Your task to perform on an android device: What is the recent news? Image 0: 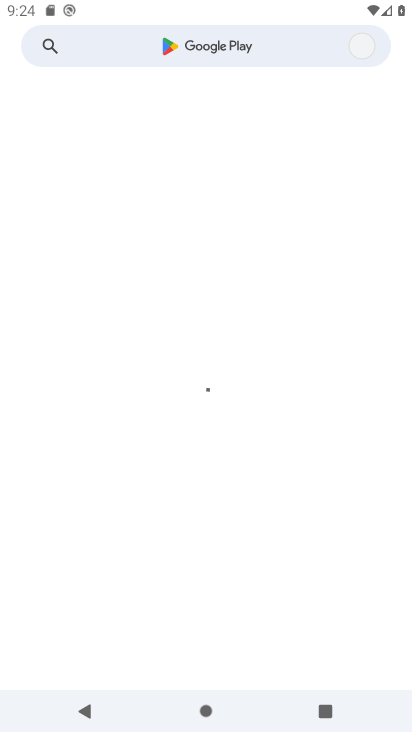
Step 0: press home button
Your task to perform on an android device: What is the recent news? Image 1: 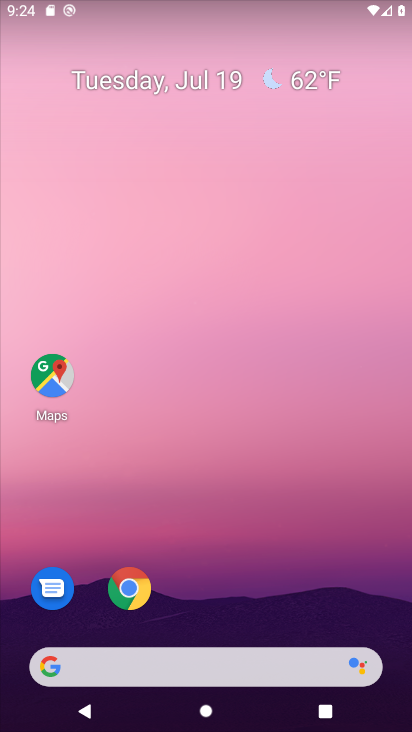
Step 1: drag from (200, 435) to (200, 314)
Your task to perform on an android device: What is the recent news? Image 2: 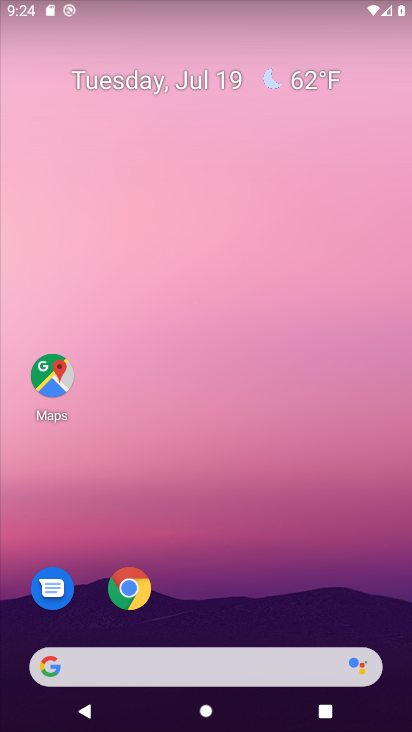
Step 2: drag from (192, 551) to (244, 91)
Your task to perform on an android device: What is the recent news? Image 3: 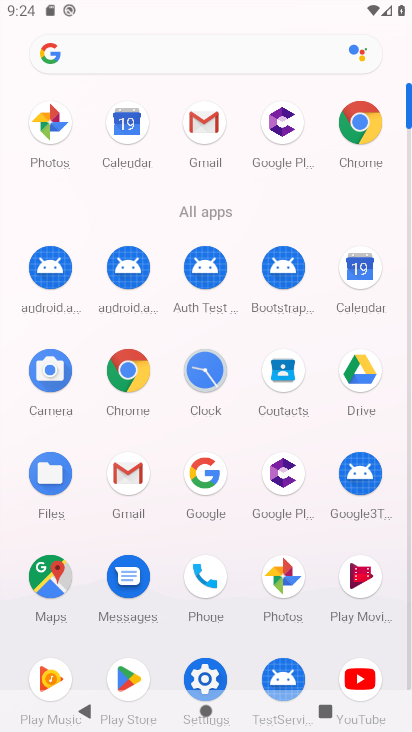
Step 3: click (201, 493)
Your task to perform on an android device: What is the recent news? Image 4: 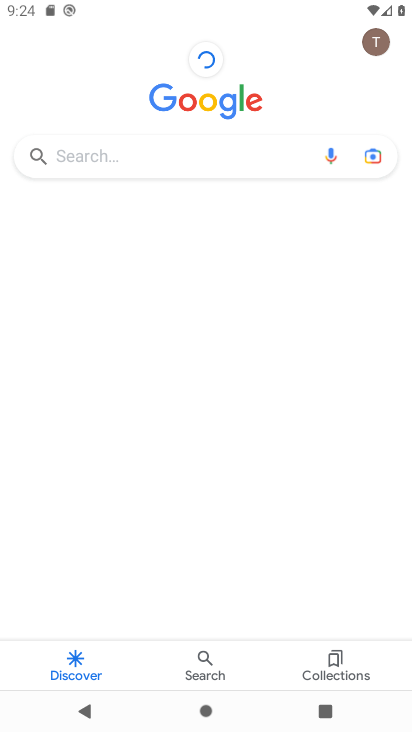
Step 4: click (109, 156)
Your task to perform on an android device: What is the recent news? Image 5: 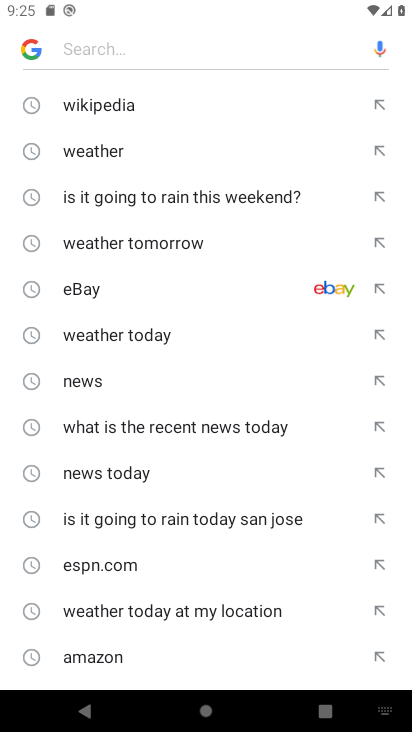
Step 5: type "recent news"
Your task to perform on an android device: What is the recent news? Image 6: 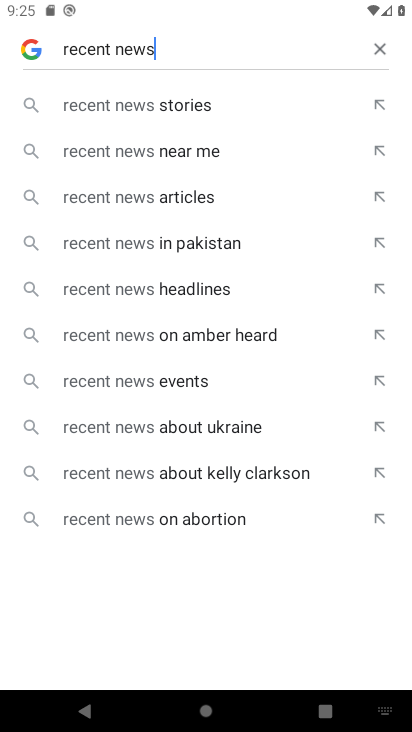
Step 6: click (168, 99)
Your task to perform on an android device: What is the recent news? Image 7: 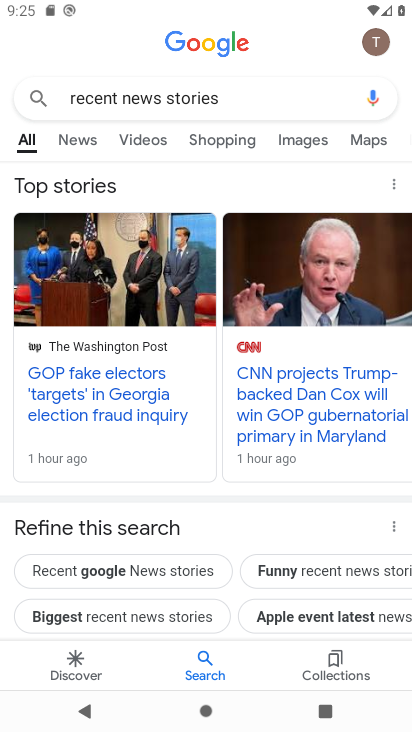
Step 7: task complete